Your task to perform on an android device: Open Google Chrome and open the bookmarks view Image 0: 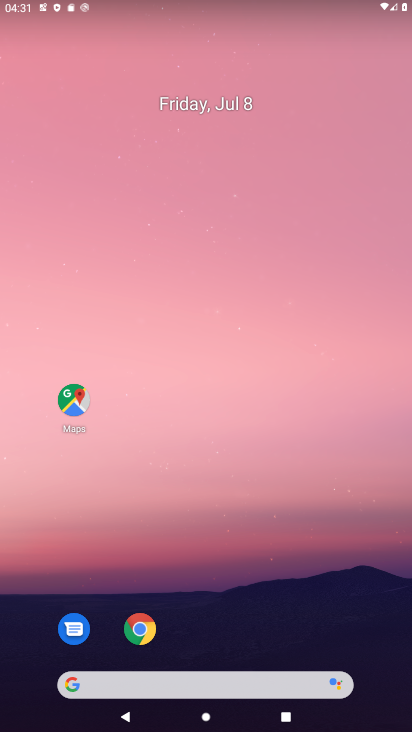
Step 0: click (141, 634)
Your task to perform on an android device: Open Google Chrome and open the bookmarks view Image 1: 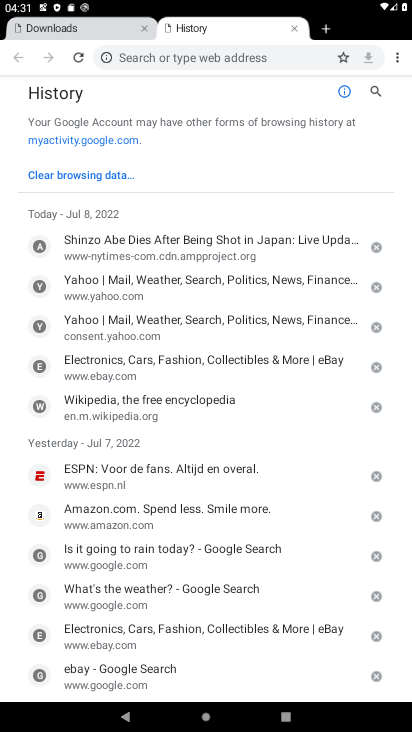
Step 1: click (398, 61)
Your task to perform on an android device: Open Google Chrome and open the bookmarks view Image 2: 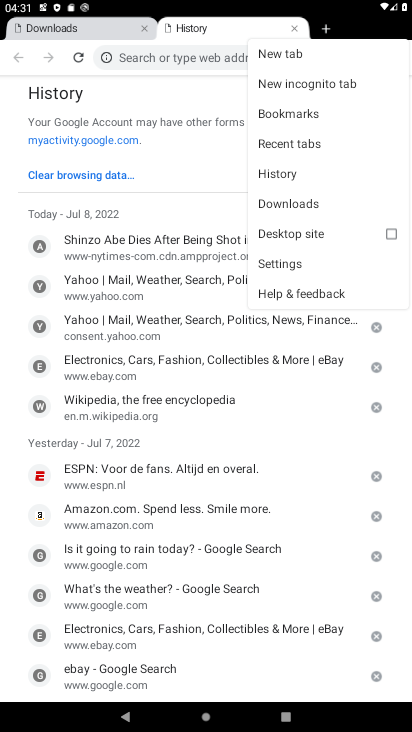
Step 2: click (296, 112)
Your task to perform on an android device: Open Google Chrome and open the bookmarks view Image 3: 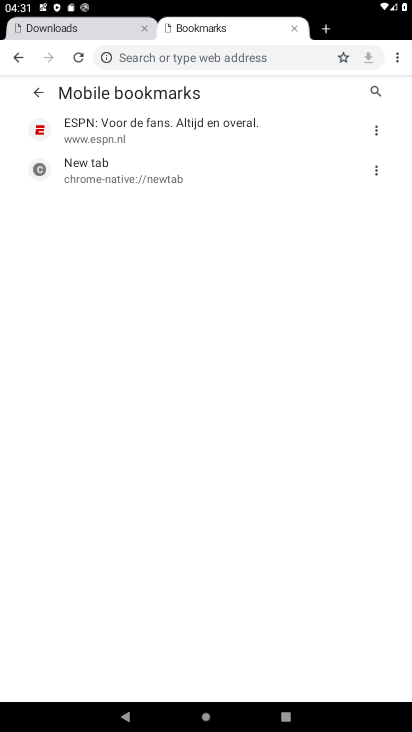
Step 3: task complete